Your task to perform on an android device: Open my contact list Image 0: 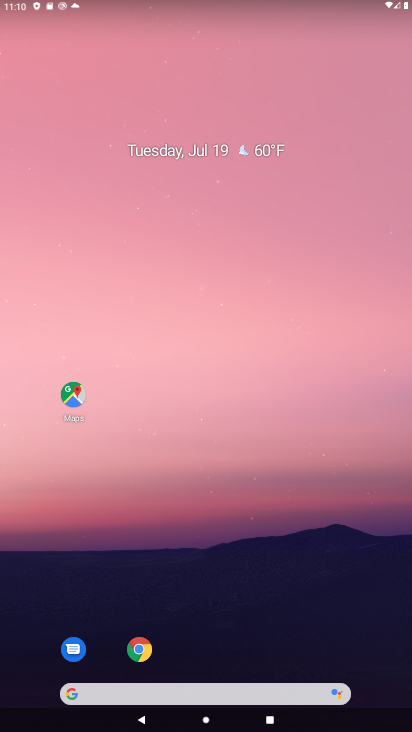
Step 0: drag from (192, 697) to (177, 254)
Your task to perform on an android device: Open my contact list Image 1: 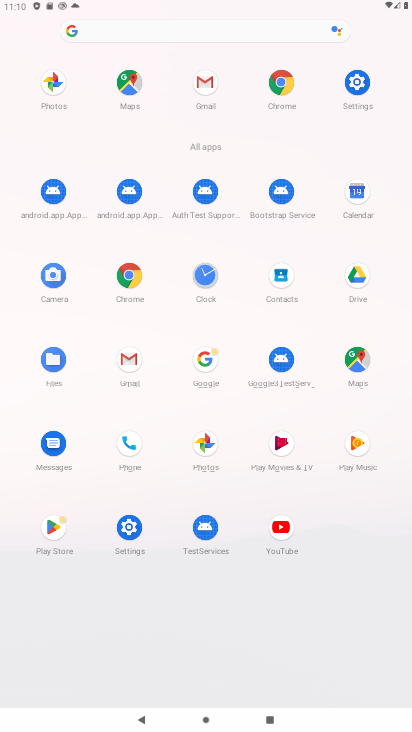
Step 1: click (283, 273)
Your task to perform on an android device: Open my contact list Image 2: 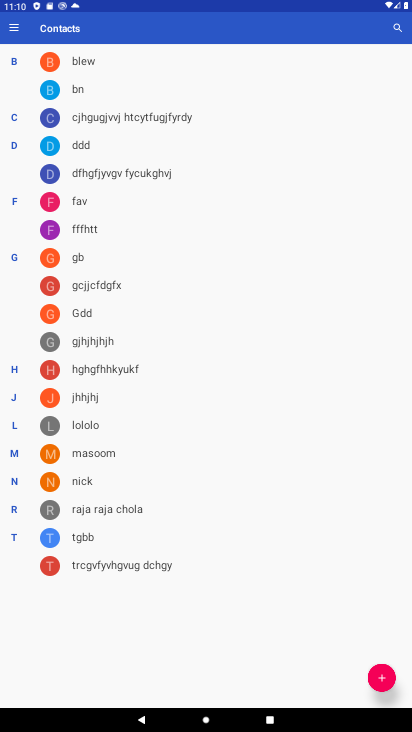
Step 2: task complete